Your task to perform on an android device: change notifications settings Image 0: 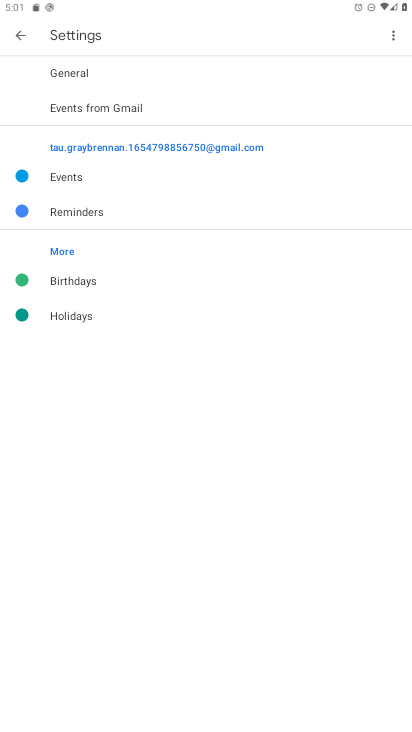
Step 0: press home button
Your task to perform on an android device: change notifications settings Image 1: 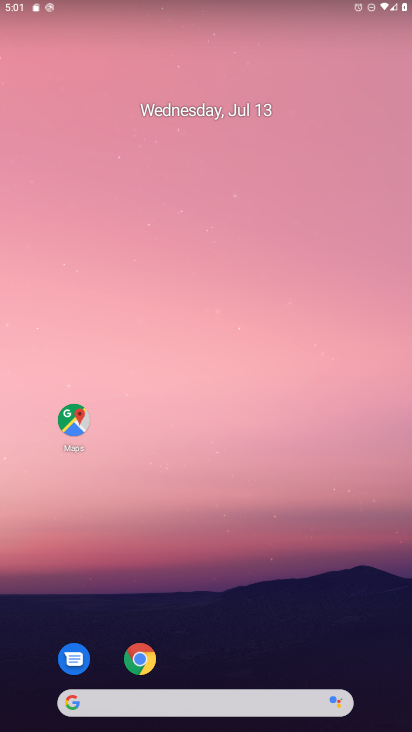
Step 1: drag from (314, 590) to (259, 141)
Your task to perform on an android device: change notifications settings Image 2: 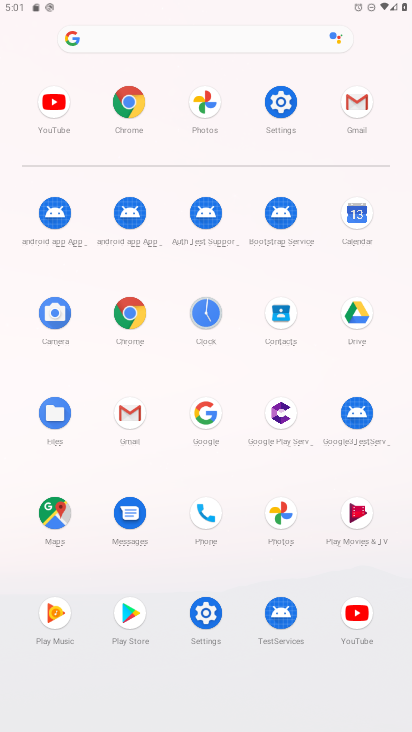
Step 2: click (281, 109)
Your task to perform on an android device: change notifications settings Image 3: 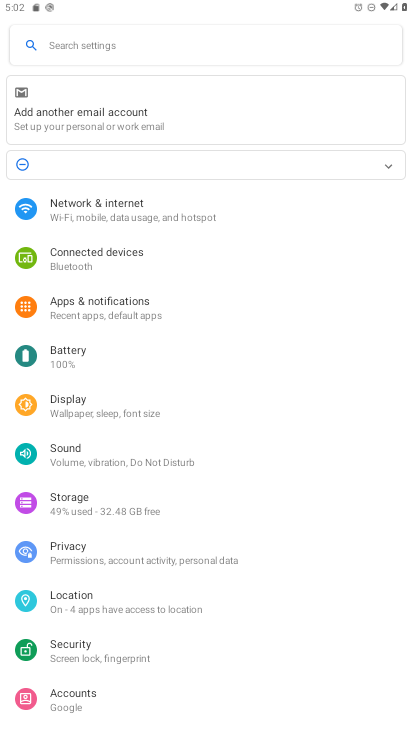
Step 3: click (115, 300)
Your task to perform on an android device: change notifications settings Image 4: 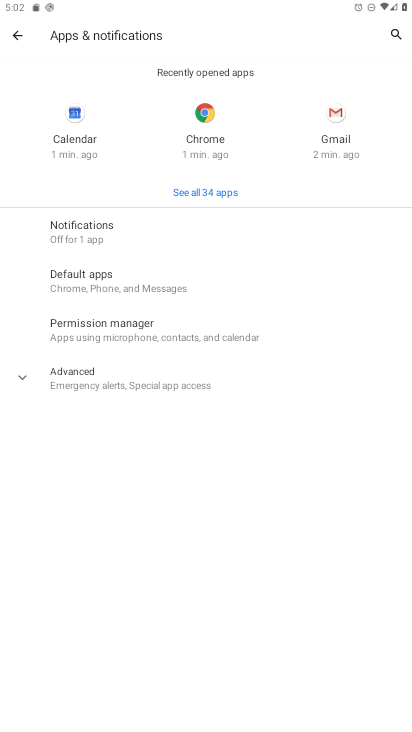
Step 4: click (98, 228)
Your task to perform on an android device: change notifications settings Image 5: 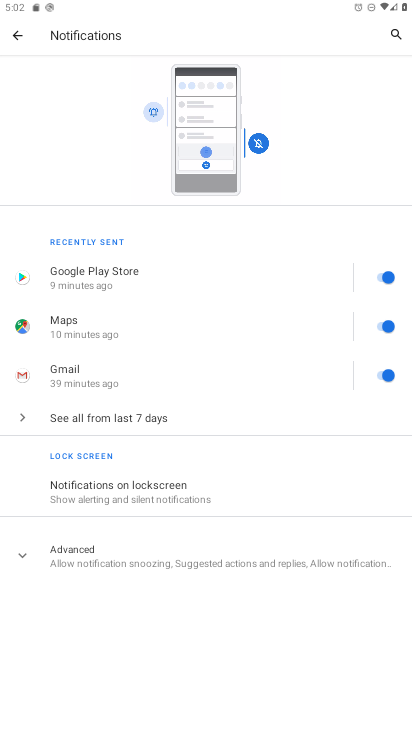
Step 5: click (287, 560)
Your task to perform on an android device: change notifications settings Image 6: 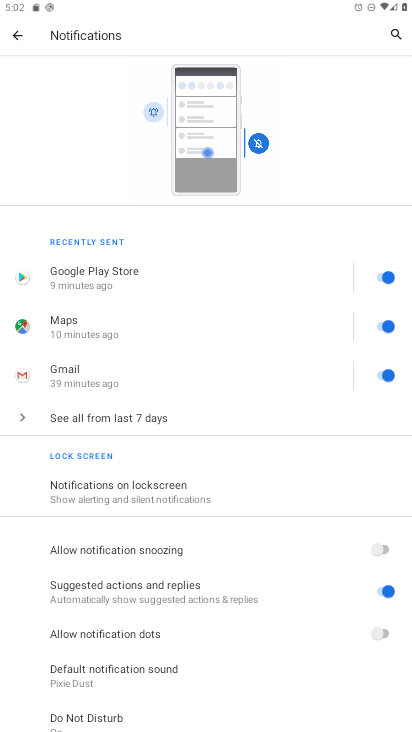
Step 6: click (387, 554)
Your task to perform on an android device: change notifications settings Image 7: 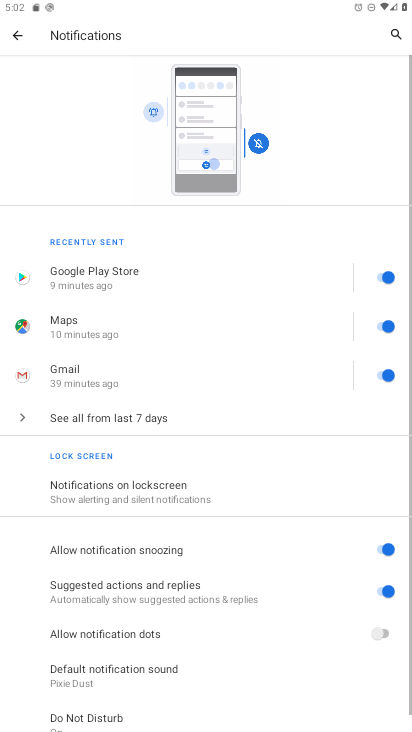
Step 7: task complete